Your task to perform on an android device: Search for Italian restaurants on Maps Image 0: 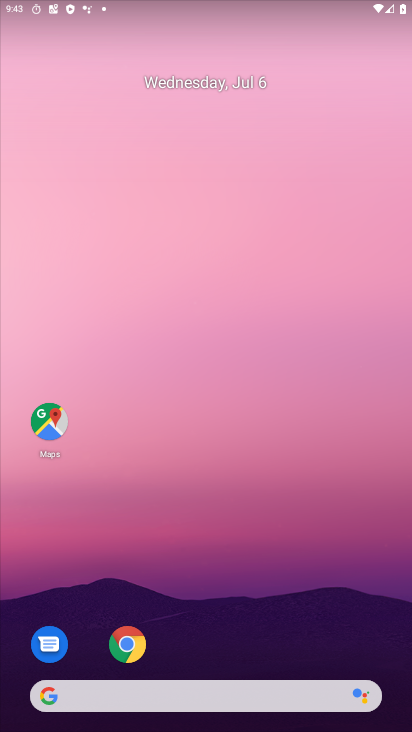
Step 0: drag from (235, 726) to (135, 200)
Your task to perform on an android device: Search for Italian restaurants on Maps Image 1: 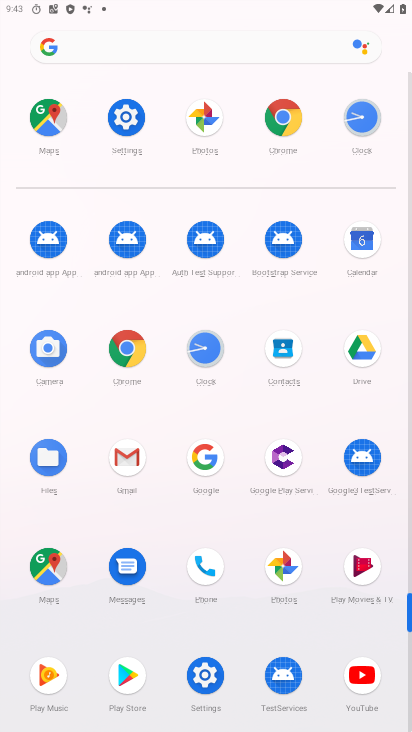
Step 1: click (57, 566)
Your task to perform on an android device: Search for Italian restaurants on Maps Image 2: 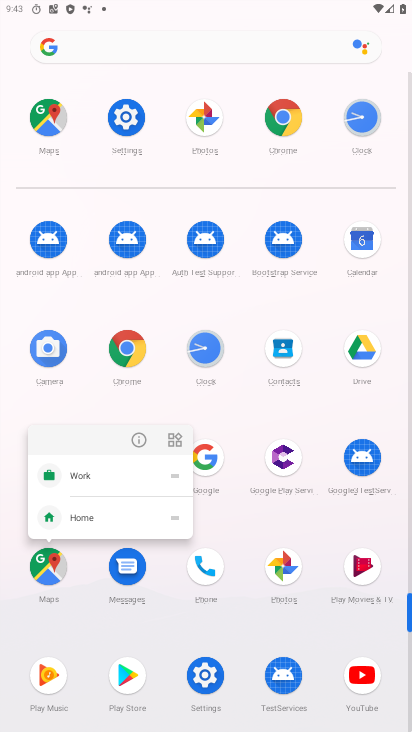
Step 2: click (55, 564)
Your task to perform on an android device: Search for Italian restaurants on Maps Image 3: 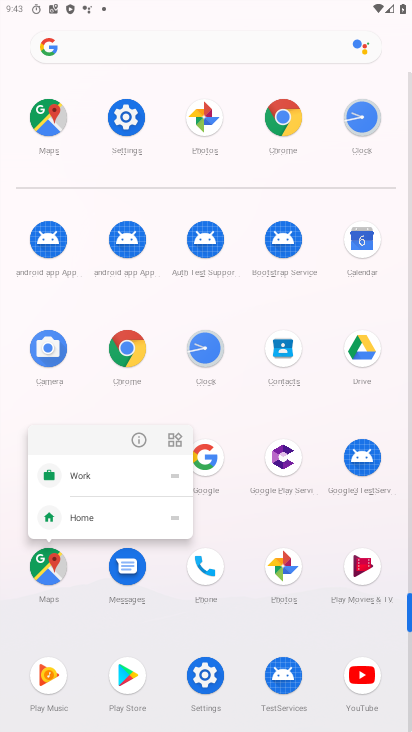
Step 3: click (58, 562)
Your task to perform on an android device: Search for Italian restaurants on Maps Image 4: 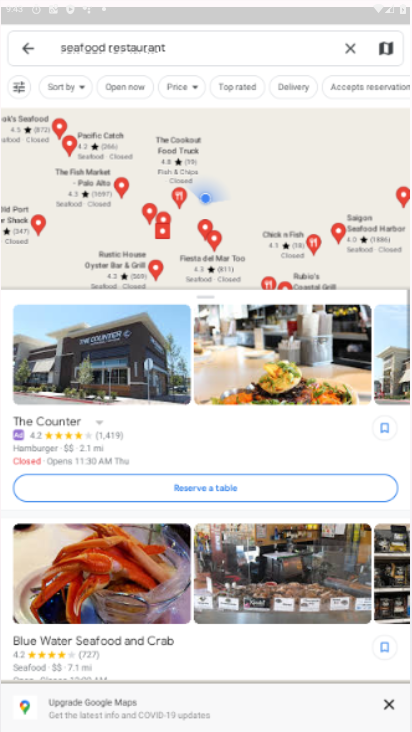
Step 4: click (59, 562)
Your task to perform on an android device: Search for Italian restaurants on Maps Image 5: 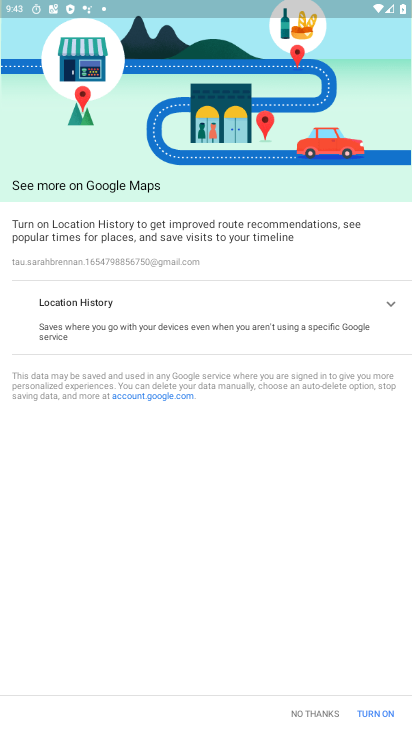
Step 5: press back button
Your task to perform on an android device: Search for Italian restaurants on Maps Image 6: 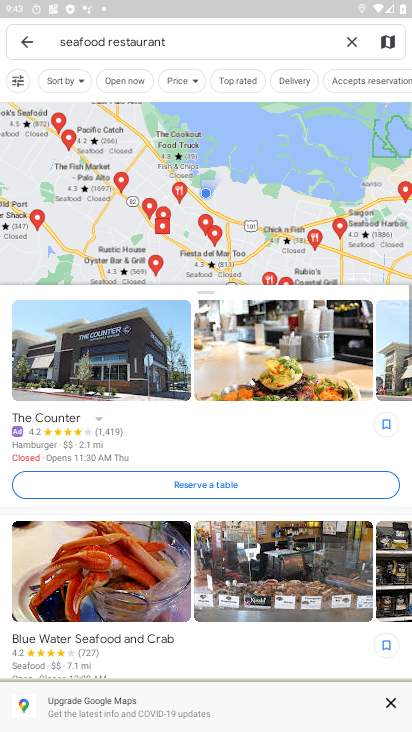
Step 6: press home button
Your task to perform on an android device: Search for Italian restaurants on Maps Image 7: 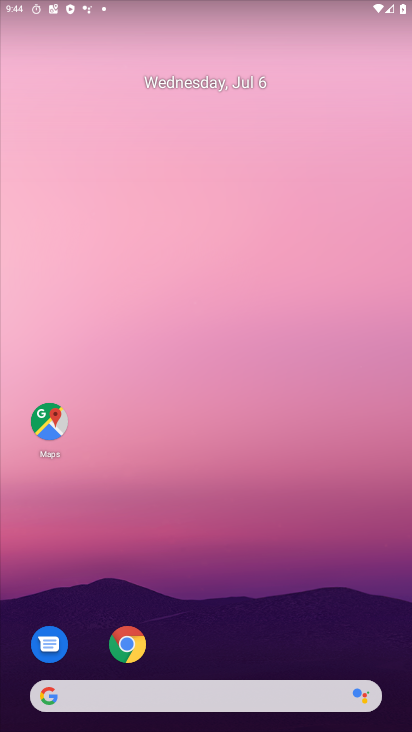
Step 7: drag from (194, 535) to (123, 79)
Your task to perform on an android device: Search for Italian restaurants on Maps Image 8: 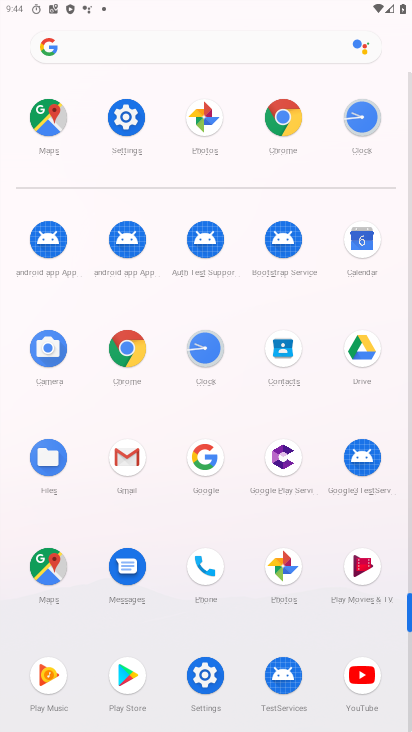
Step 8: click (36, 573)
Your task to perform on an android device: Search for Italian restaurants on Maps Image 9: 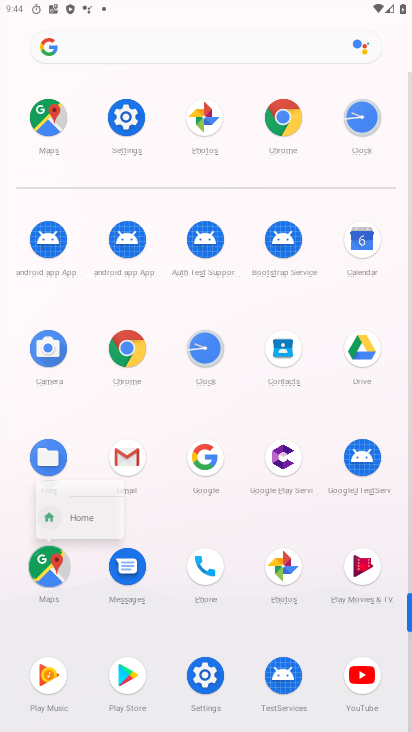
Step 9: click (36, 571)
Your task to perform on an android device: Search for Italian restaurants on Maps Image 10: 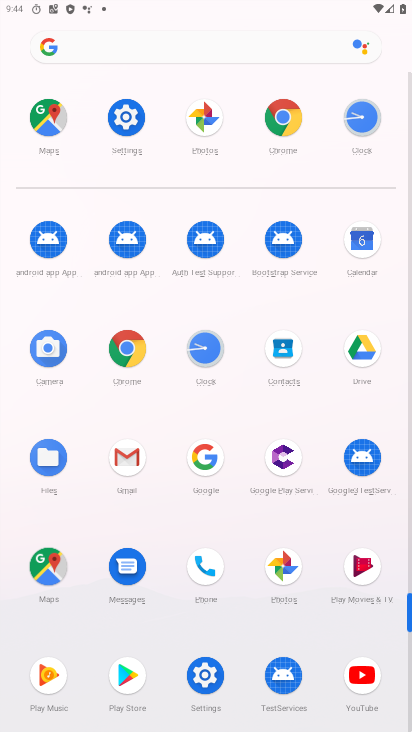
Step 10: click (38, 568)
Your task to perform on an android device: Search for Italian restaurants on Maps Image 11: 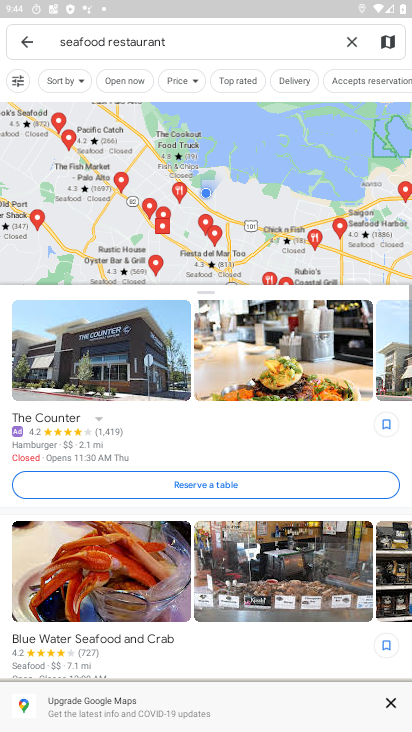
Step 11: click (114, 44)
Your task to perform on an android device: Search for Italian restaurants on Maps Image 12: 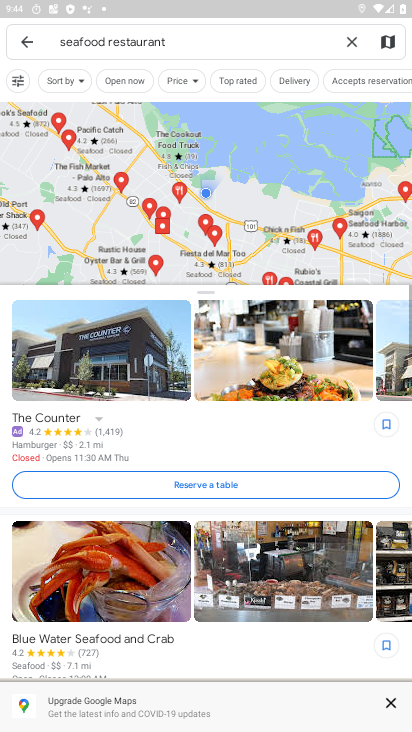
Step 12: click (117, 45)
Your task to perform on an android device: Search for Italian restaurants on Maps Image 13: 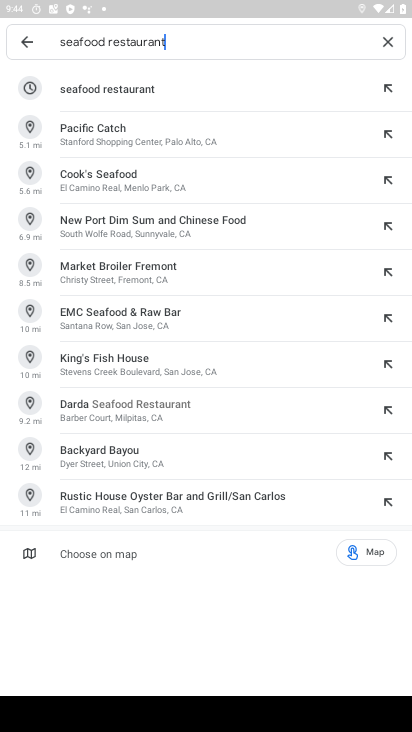
Step 13: click (389, 41)
Your task to perform on an android device: Search for Italian restaurants on Maps Image 14: 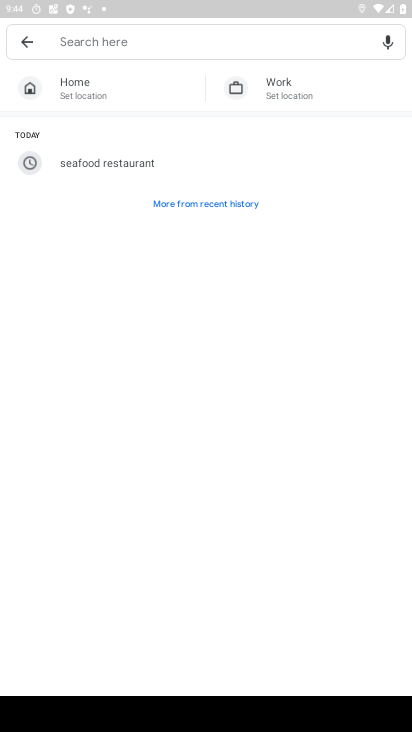
Step 14: type "italian restaurants"
Your task to perform on an android device: Search for Italian restaurants on Maps Image 15: 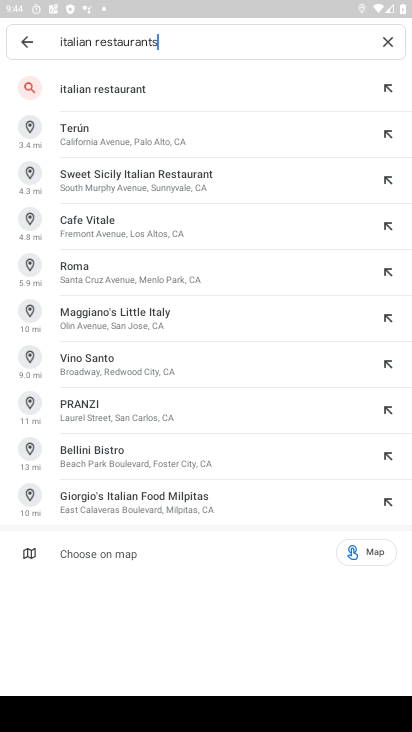
Step 15: click (114, 98)
Your task to perform on an android device: Search for Italian restaurants on Maps Image 16: 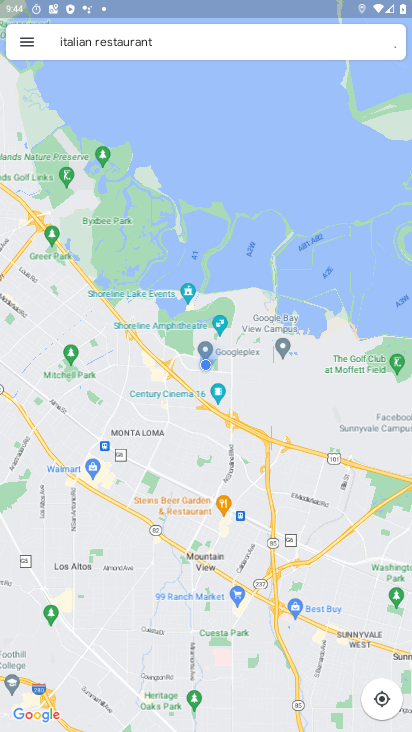
Step 16: task complete